Your task to perform on an android device: see tabs open on other devices in the chrome app Image 0: 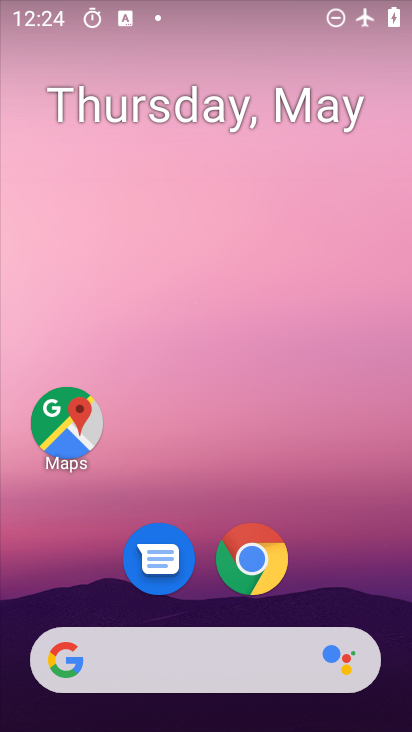
Step 0: drag from (214, 663) to (259, 104)
Your task to perform on an android device: see tabs open on other devices in the chrome app Image 1: 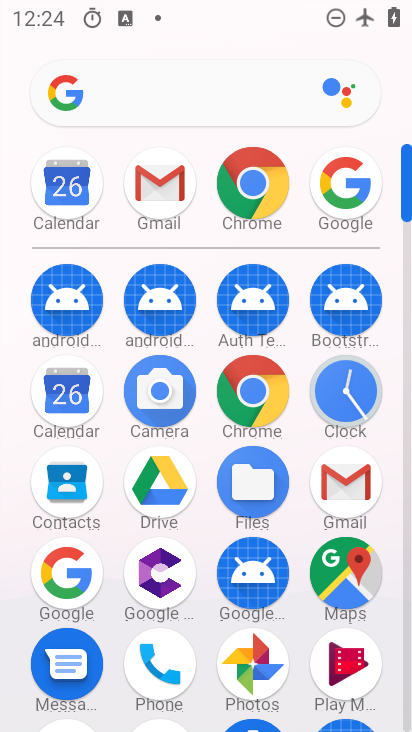
Step 1: click (249, 402)
Your task to perform on an android device: see tabs open on other devices in the chrome app Image 2: 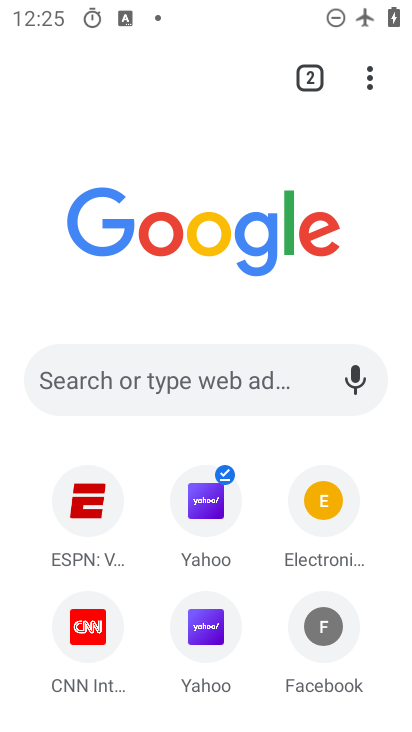
Step 2: task complete